Your task to perform on an android device: Open Google Maps Image 0: 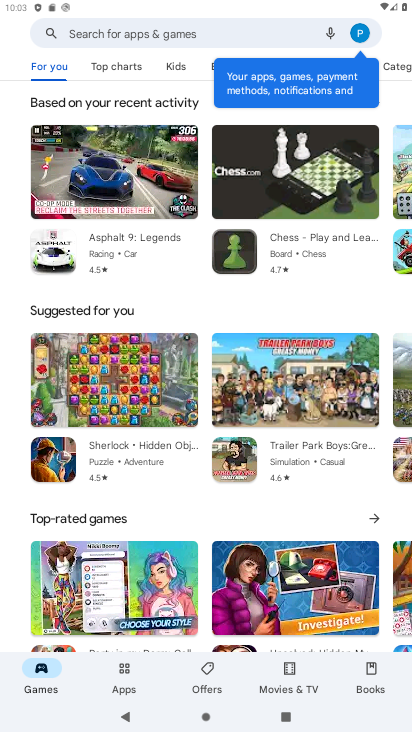
Step 0: press home button
Your task to perform on an android device: Open Google Maps Image 1: 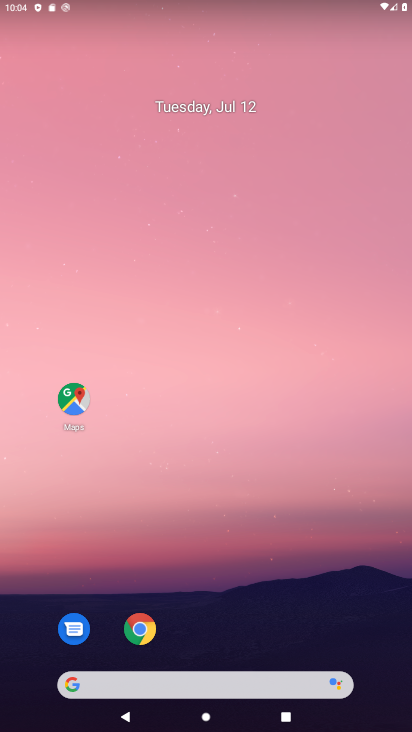
Step 1: drag from (334, 587) to (285, 127)
Your task to perform on an android device: Open Google Maps Image 2: 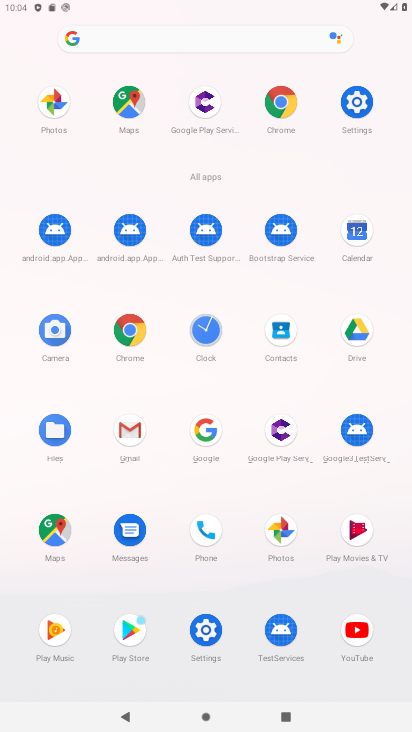
Step 2: click (134, 125)
Your task to perform on an android device: Open Google Maps Image 3: 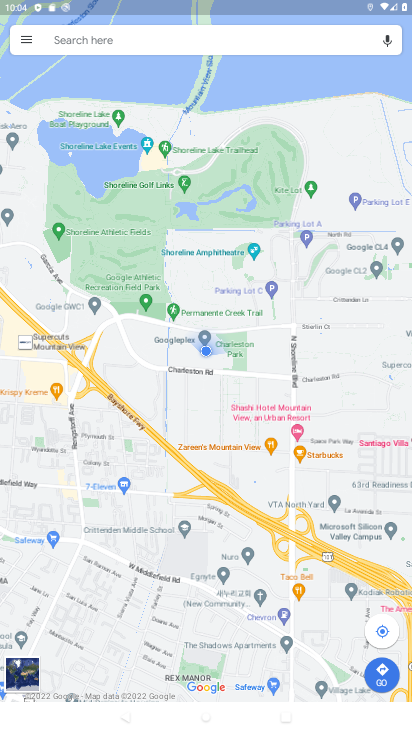
Step 3: task complete